Your task to perform on an android device: change the clock style Image 0: 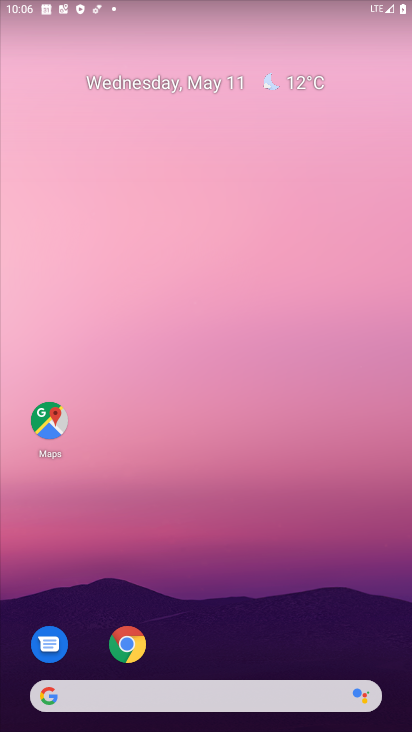
Step 0: drag from (207, 635) to (90, 57)
Your task to perform on an android device: change the clock style Image 1: 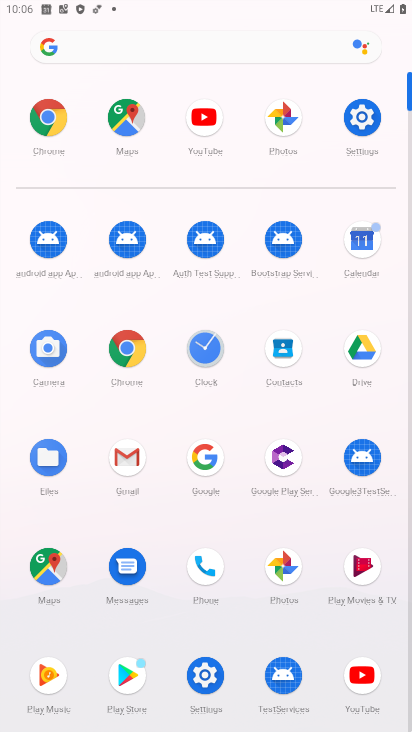
Step 1: click (213, 348)
Your task to perform on an android device: change the clock style Image 2: 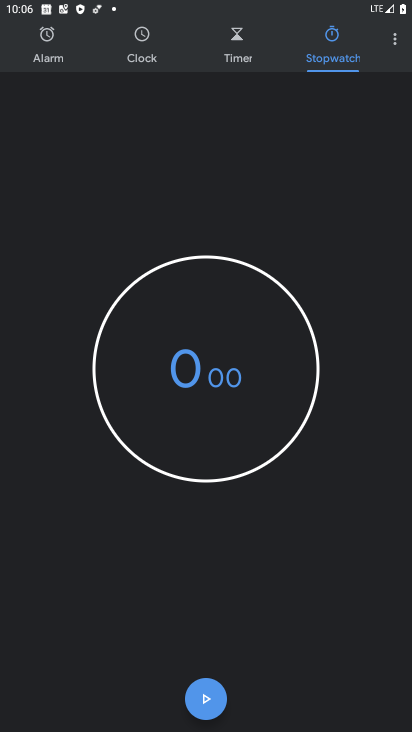
Step 2: click (397, 32)
Your task to perform on an android device: change the clock style Image 3: 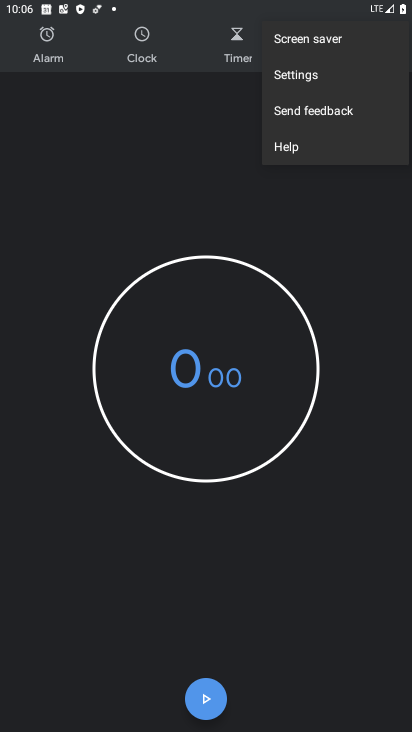
Step 3: click (325, 77)
Your task to perform on an android device: change the clock style Image 4: 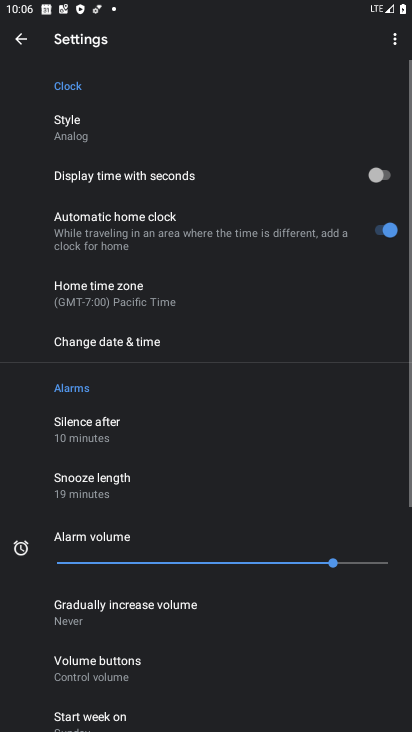
Step 4: click (163, 132)
Your task to perform on an android device: change the clock style Image 5: 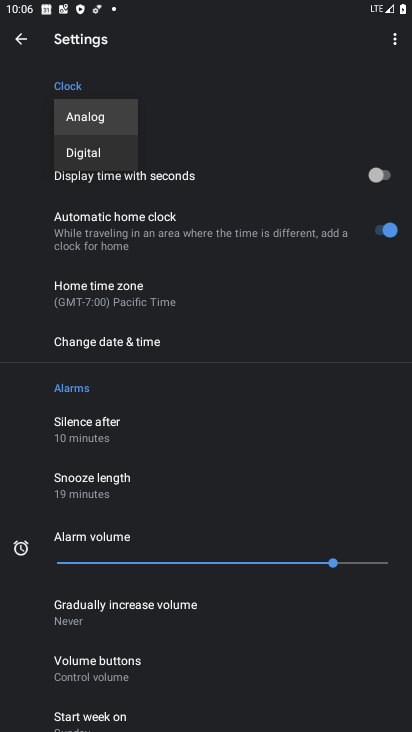
Step 5: click (88, 145)
Your task to perform on an android device: change the clock style Image 6: 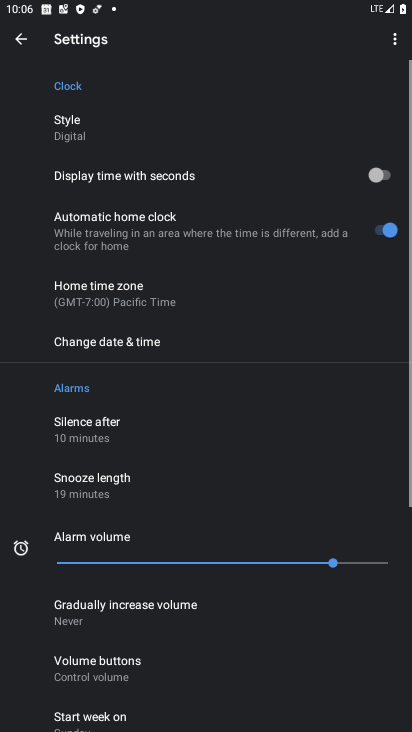
Step 6: task complete